Your task to perform on an android device: change text size in settings app Image 0: 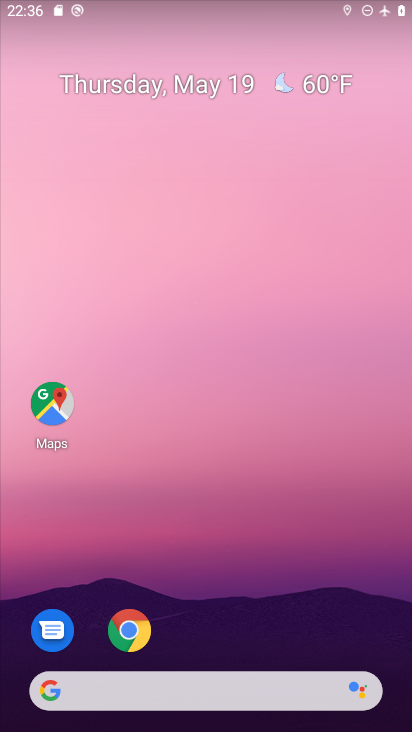
Step 0: drag from (242, 536) to (199, 95)
Your task to perform on an android device: change text size in settings app Image 1: 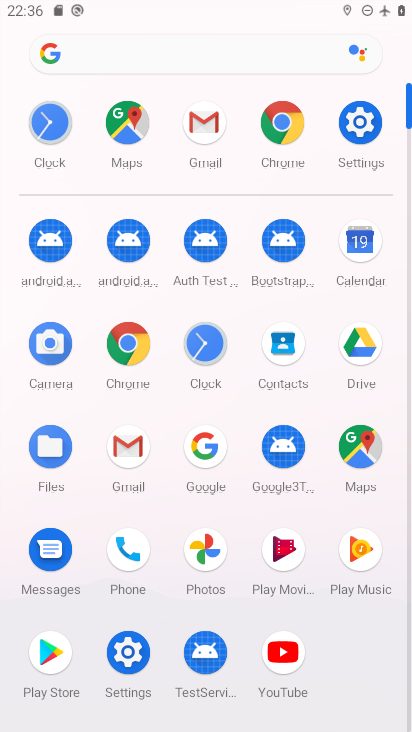
Step 1: click (117, 651)
Your task to perform on an android device: change text size in settings app Image 2: 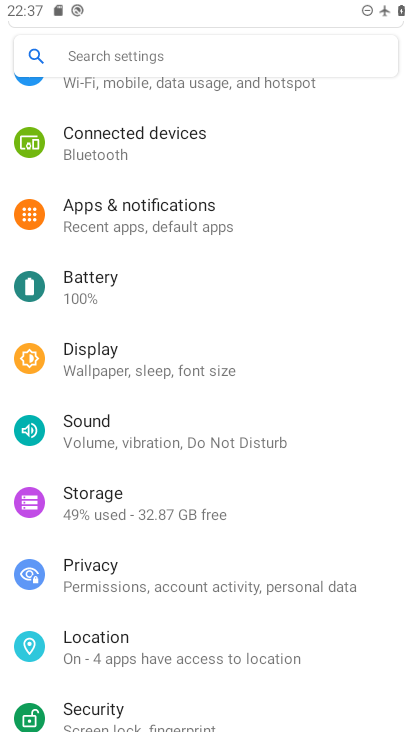
Step 2: click (94, 360)
Your task to perform on an android device: change text size in settings app Image 3: 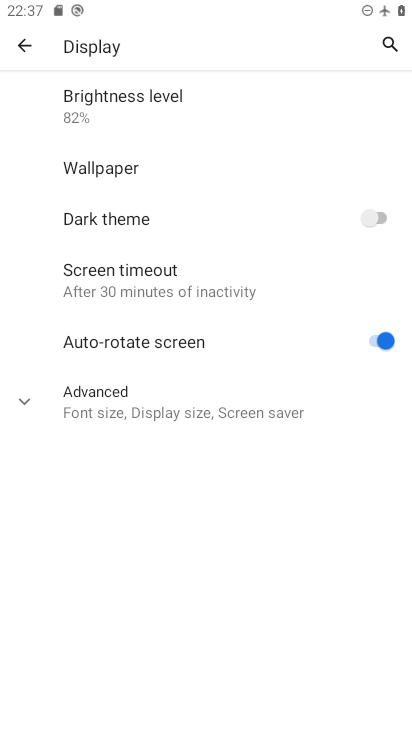
Step 3: click (64, 397)
Your task to perform on an android device: change text size in settings app Image 4: 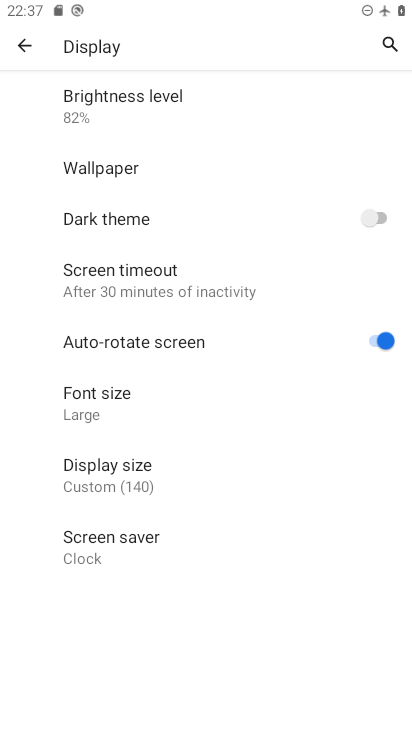
Step 4: click (104, 399)
Your task to perform on an android device: change text size in settings app Image 5: 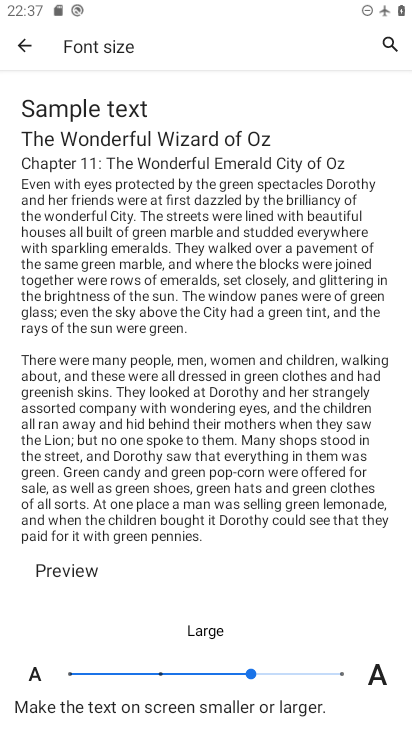
Step 5: click (160, 662)
Your task to perform on an android device: change text size in settings app Image 6: 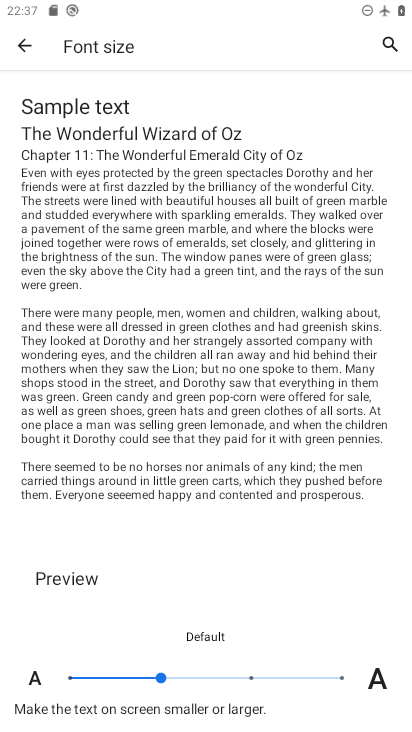
Step 6: task complete